Your task to perform on an android device: Go to location settings Image 0: 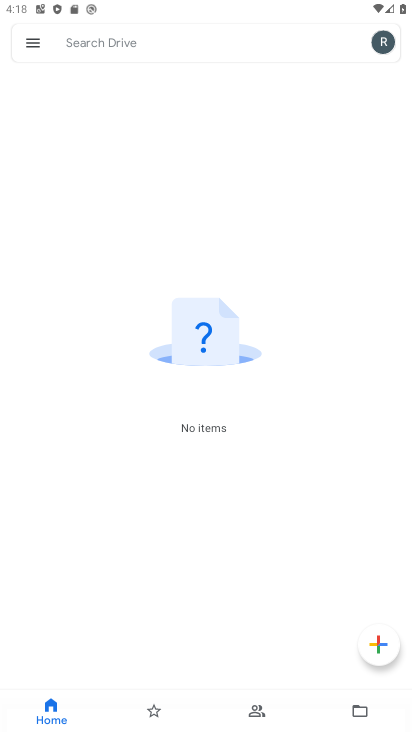
Step 0: press home button
Your task to perform on an android device: Go to location settings Image 1: 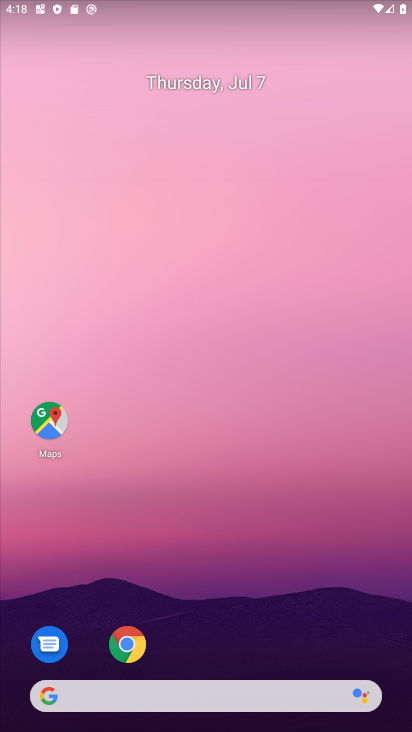
Step 1: drag from (228, 601) to (255, 30)
Your task to perform on an android device: Go to location settings Image 2: 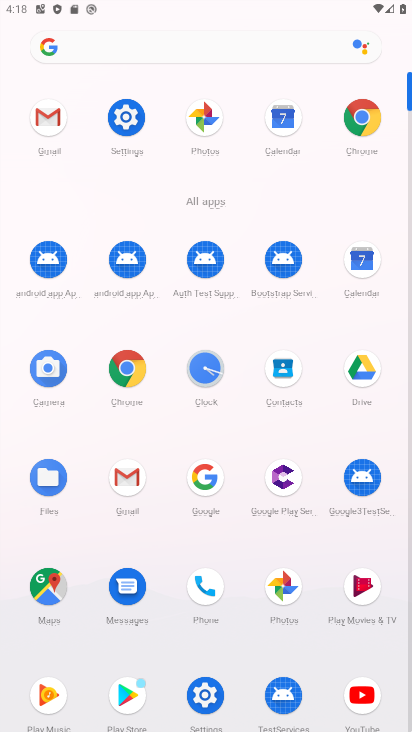
Step 2: click (209, 699)
Your task to perform on an android device: Go to location settings Image 3: 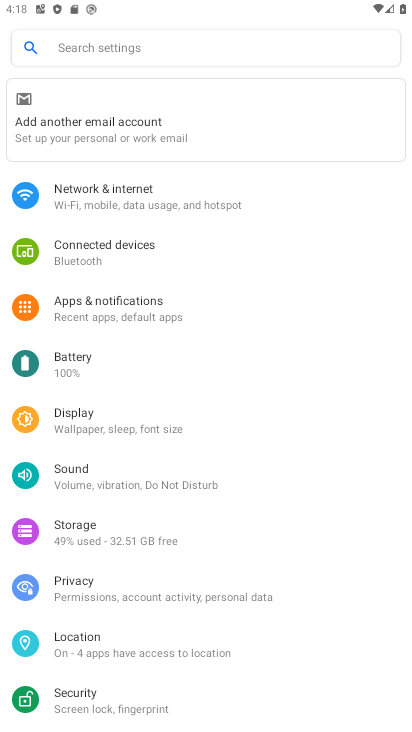
Step 3: click (125, 655)
Your task to perform on an android device: Go to location settings Image 4: 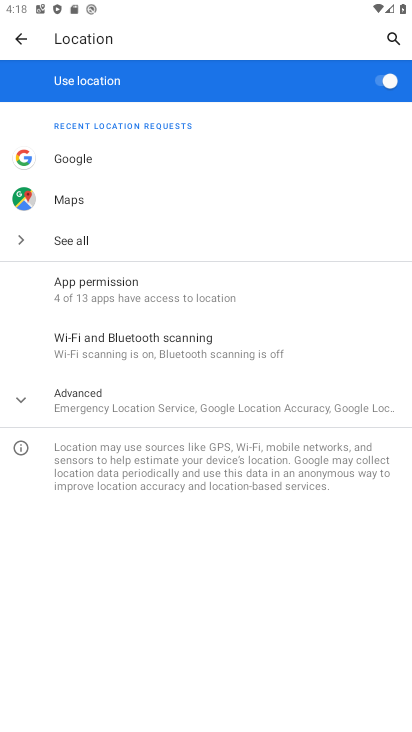
Step 4: task complete